Your task to perform on an android device: turn off translation in the chrome app Image 0: 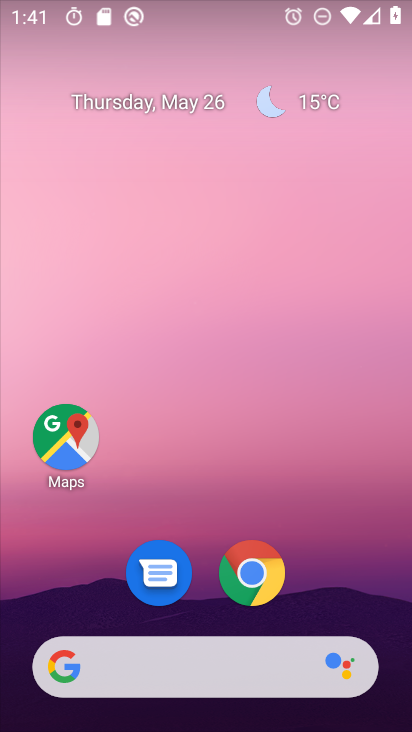
Step 0: click (253, 577)
Your task to perform on an android device: turn off translation in the chrome app Image 1: 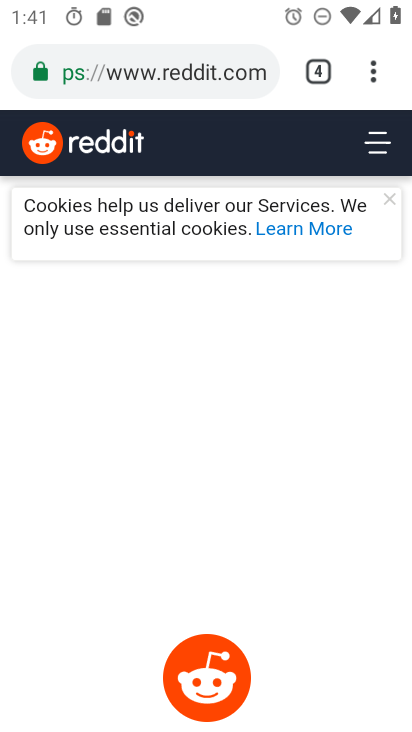
Step 1: click (371, 69)
Your task to perform on an android device: turn off translation in the chrome app Image 2: 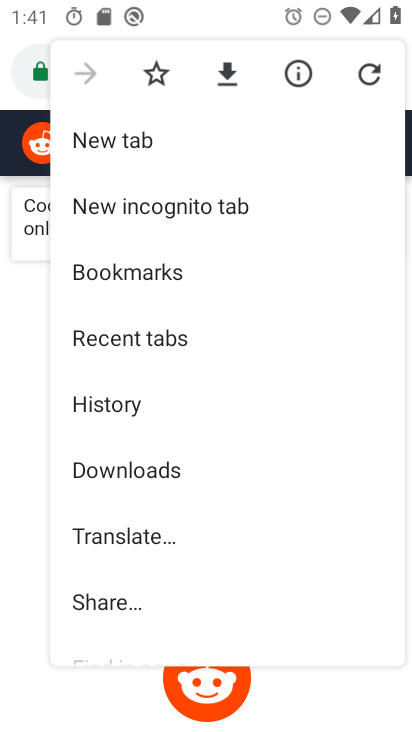
Step 2: drag from (193, 584) to (16, 347)
Your task to perform on an android device: turn off translation in the chrome app Image 3: 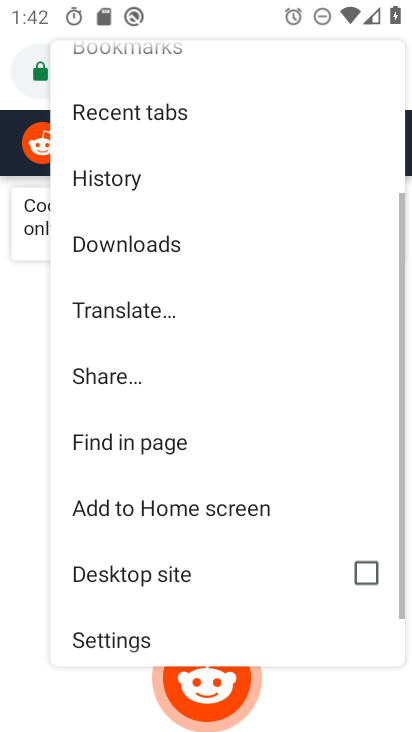
Step 3: drag from (184, 588) to (180, 327)
Your task to perform on an android device: turn off translation in the chrome app Image 4: 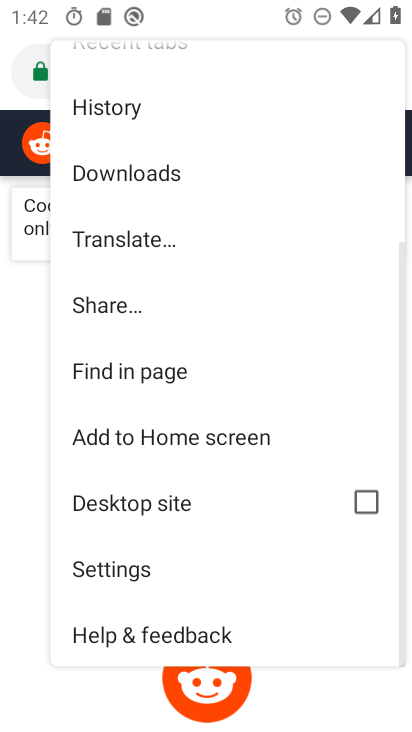
Step 4: click (125, 567)
Your task to perform on an android device: turn off translation in the chrome app Image 5: 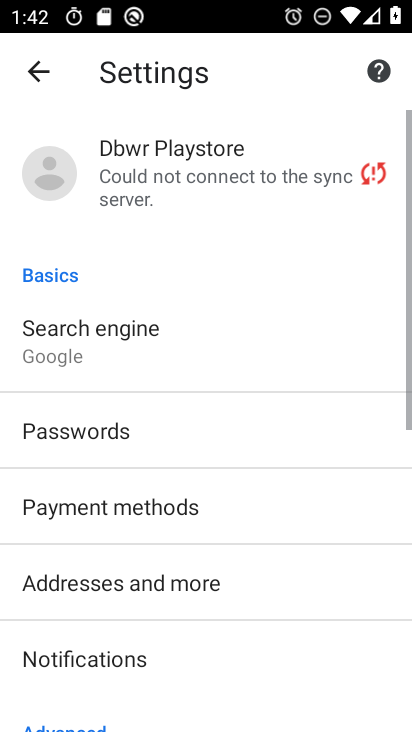
Step 5: drag from (221, 634) to (217, 58)
Your task to perform on an android device: turn off translation in the chrome app Image 6: 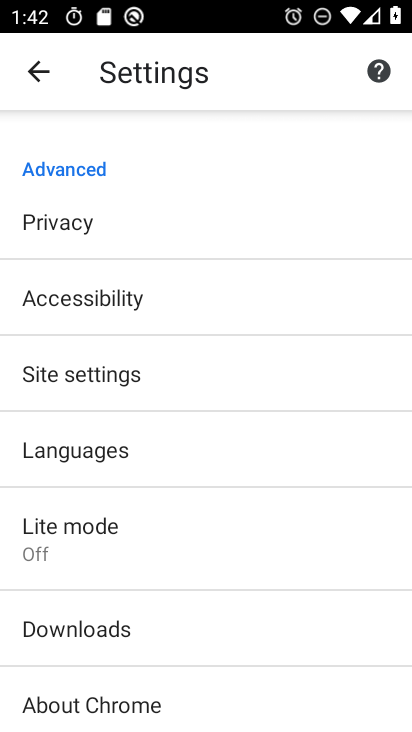
Step 6: click (105, 455)
Your task to perform on an android device: turn off translation in the chrome app Image 7: 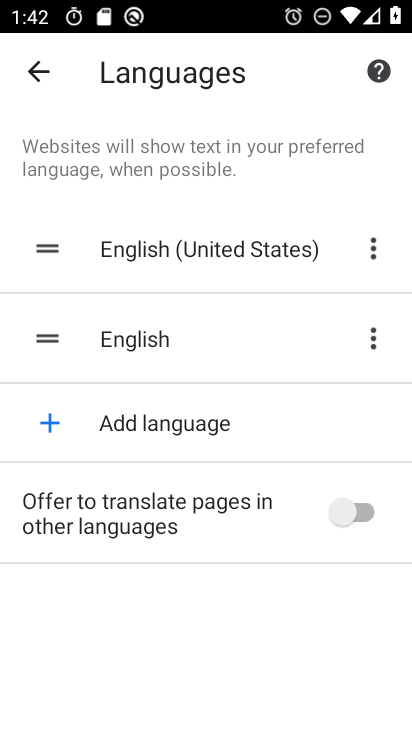
Step 7: task complete